Your task to perform on an android device: Open Youtube and go to "Your channel" Image 0: 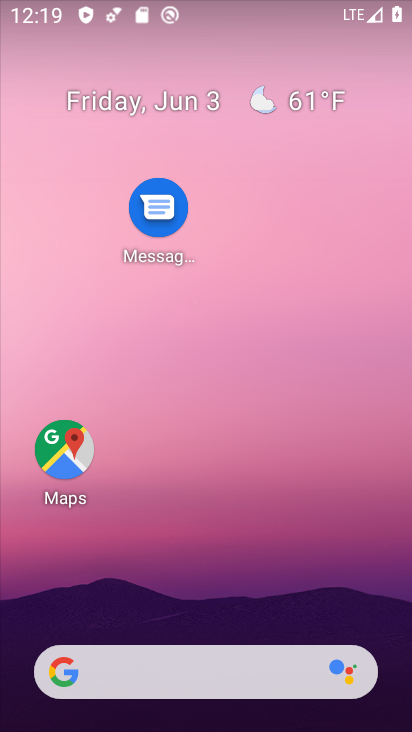
Step 0: drag from (208, 647) to (312, 56)
Your task to perform on an android device: Open Youtube and go to "Your channel" Image 1: 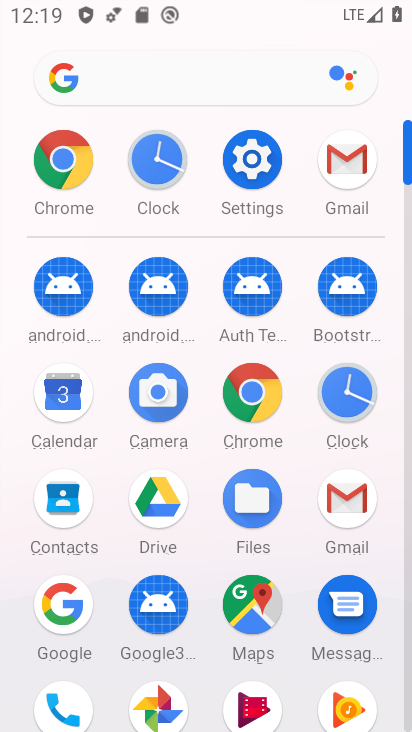
Step 1: drag from (199, 674) to (207, 48)
Your task to perform on an android device: Open Youtube and go to "Your channel" Image 2: 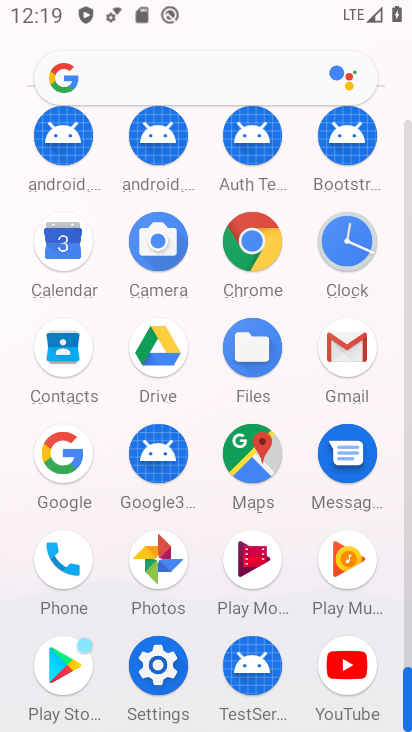
Step 2: click (361, 646)
Your task to perform on an android device: Open Youtube and go to "Your channel" Image 3: 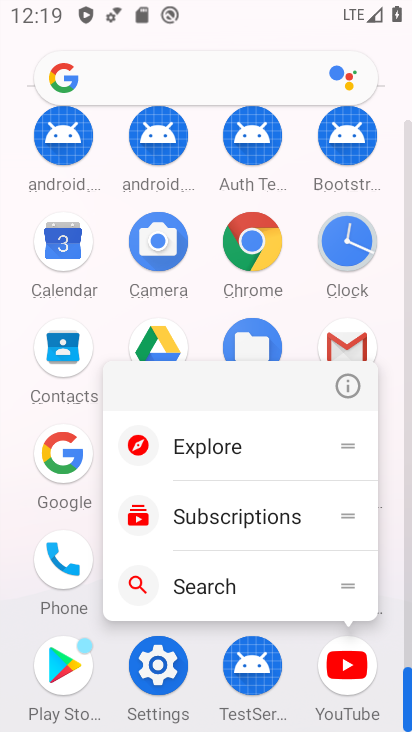
Step 3: click (349, 666)
Your task to perform on an android device: Open Youtube and go to "Your channel" Image 4: 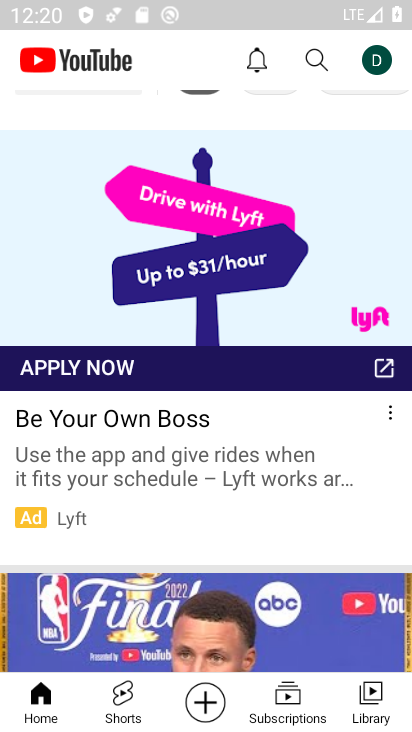
Step 4: click (371, 63)
Your task to perform on an android device: Open Youtube and go to "Your channel" Image 5: 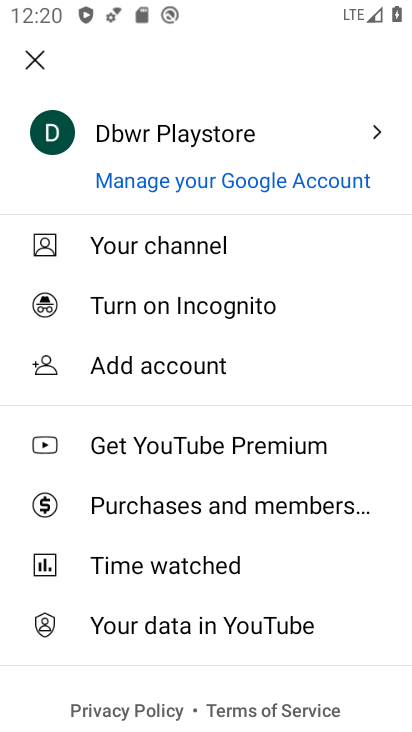
Step 5: click (132, 225)
Your task to perform on an android device: Open Youtube and go to "Your channel" Image 6: 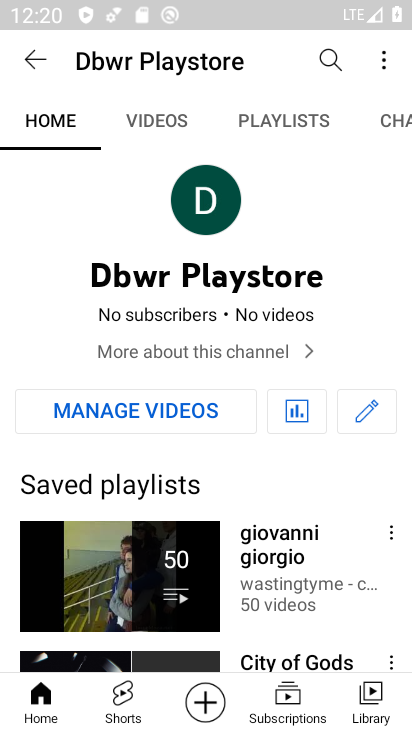
Step 6: task complete